Your task to perform on an android device: Go to battery settings Image 0: 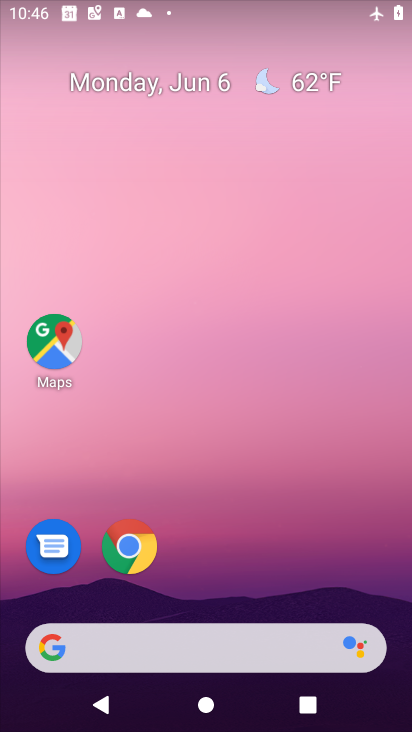
Step 0: press home button
Your task to perform on an android device: Go to battery settings Image 1: 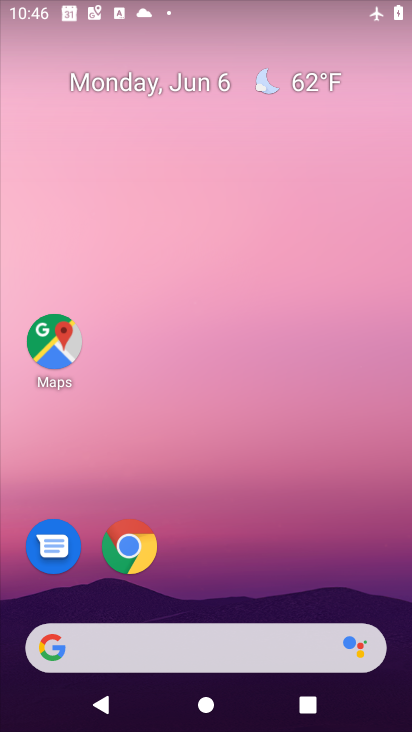
Step 1: drag from (369, 594) to (386, 56)
Your task to perform on an android device: Go to battery settings Image 2: 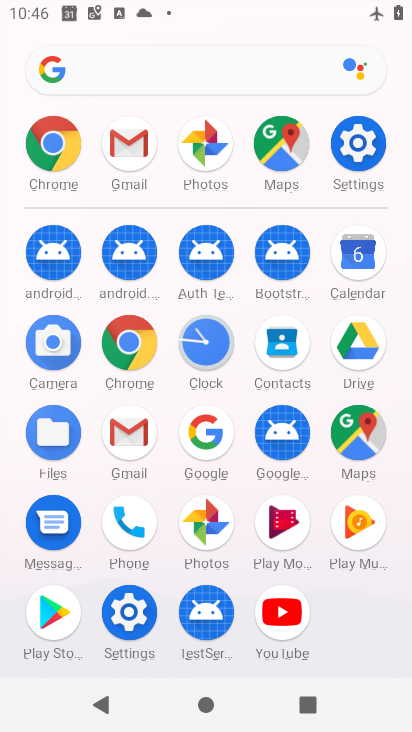
Step 2: click (127, 611)
Your task to perform on an android device: Go to battery settings Image 3: 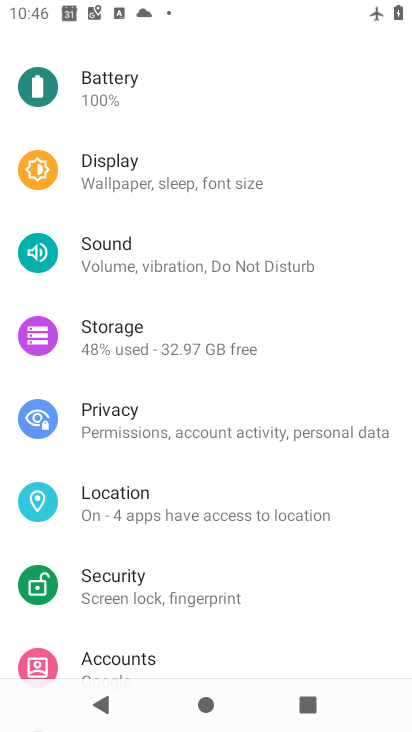
Step 3: click (100, 86)
Your task to perform on an android device: Go to battery settings Image 4: 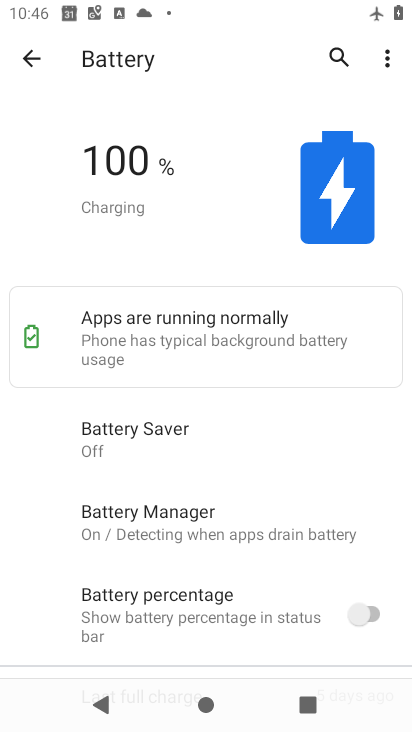
Step 4: task complete